Your task to perform on an android device: check battery use Image 0: 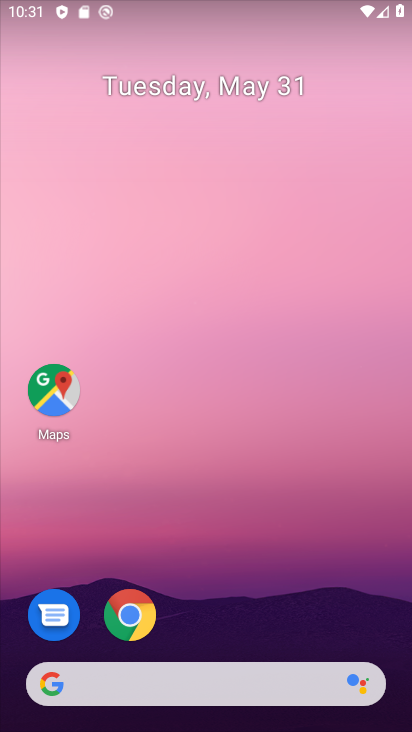
Step 0: drag from (315, 634) to (338, 80)
Your task to perform on an android device: check battery use Image 1: 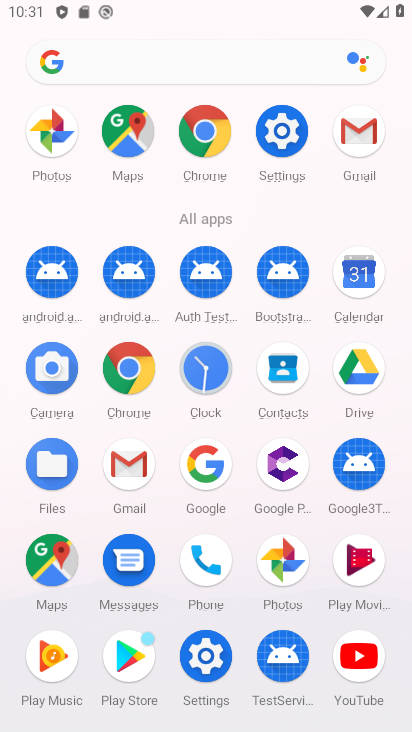
Step 1: click (275, 138)
Your task to perform on an android device: check battery use Image 2: 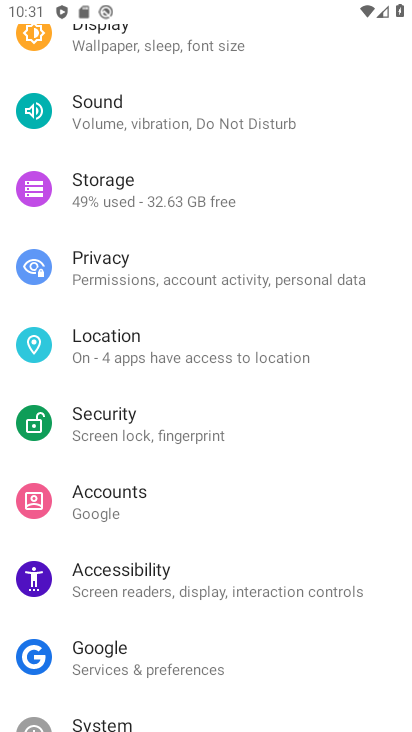
Step 2: drag from (216, 194) to (248, 380)
Your task to perform on an android device: check battery use Image 3: 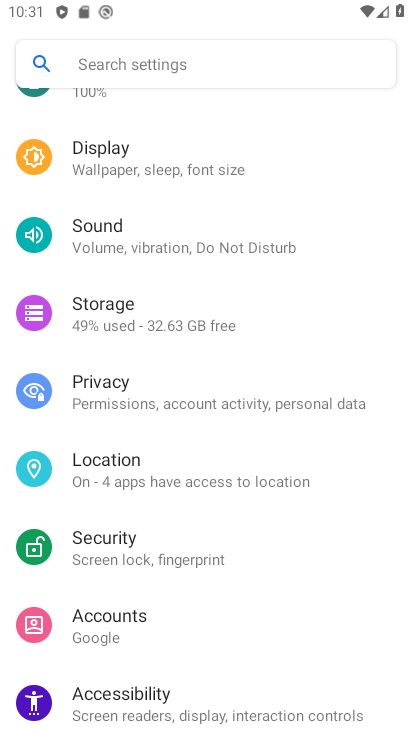
Step 3: click (109, 86)
Your task to perform on an android device: check battery use Image 4: 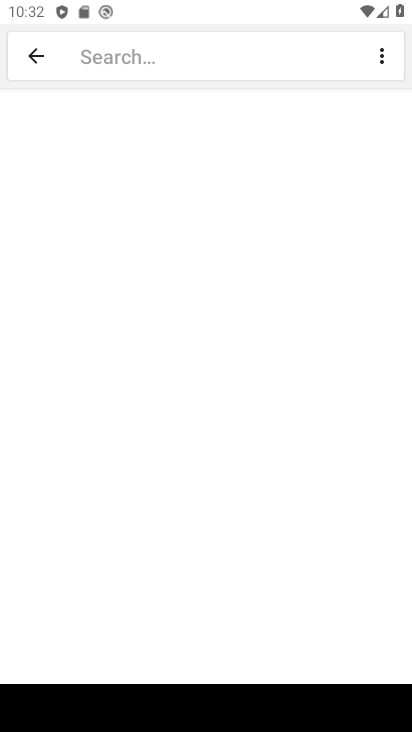
Step 4: task complete